Your task to perform on an android device: open wifi settings Image 0: 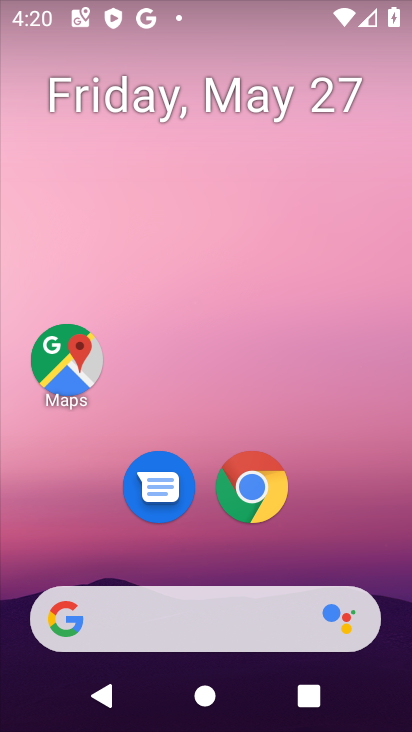
Step 0: drag from (324, 533) to (222, 4)
Your task to perform on an android device: open wifi settings Image 1: 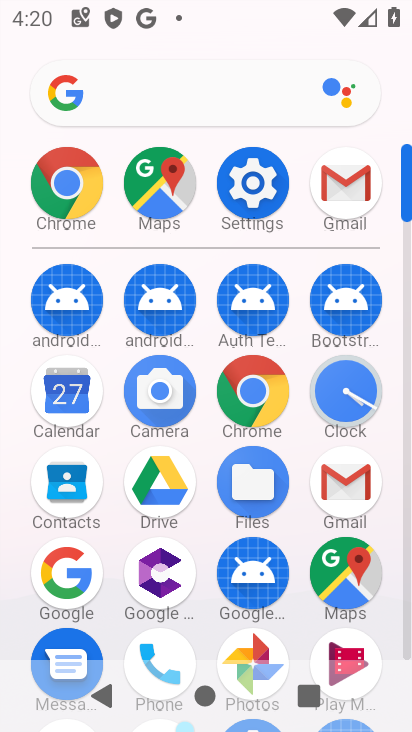
Step 1: click (269, 226)
Your task to perform on an android device: open wifi settings Image 2: 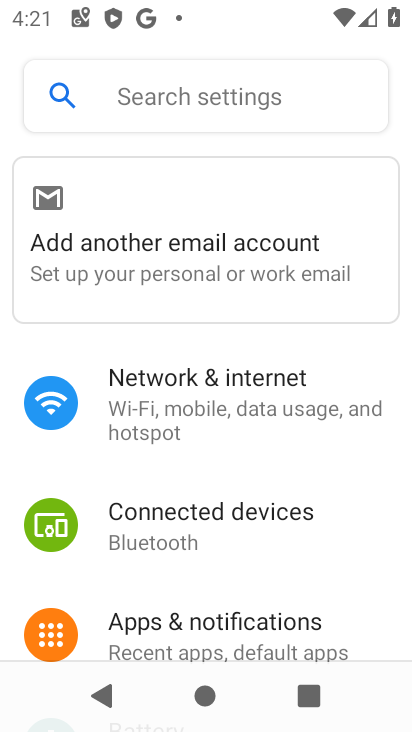
Step 2: click (210, 389)
Your task to perform on an android device: open wifi settings Image 3: 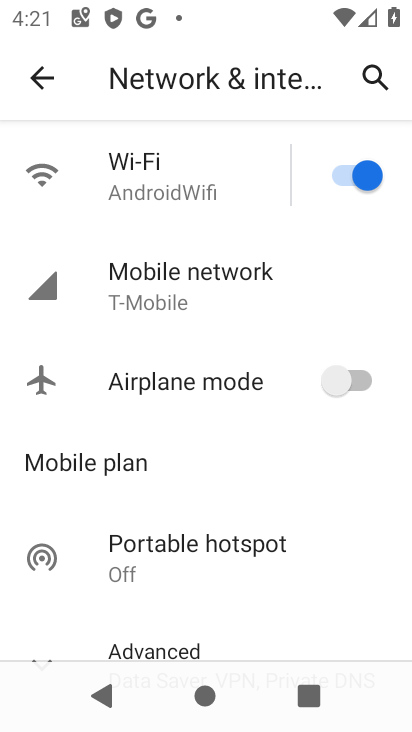
Step 3: click (179, 213)
Your task to perform on an android device: open wifi settings Image 4: 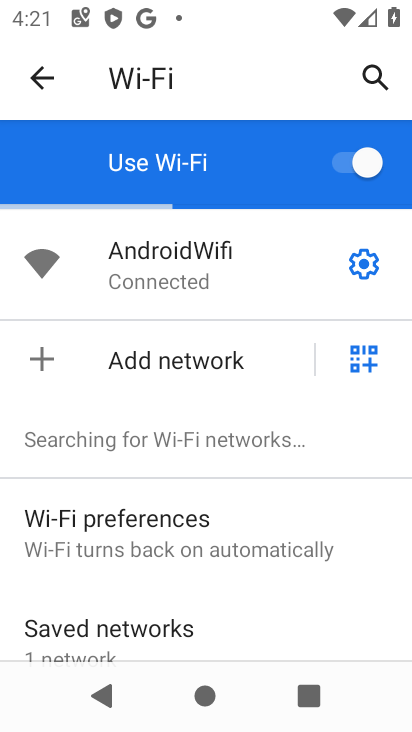
Step 4: click (366, 260)
Your task to perform on an android device: open wifi settings Image 5: 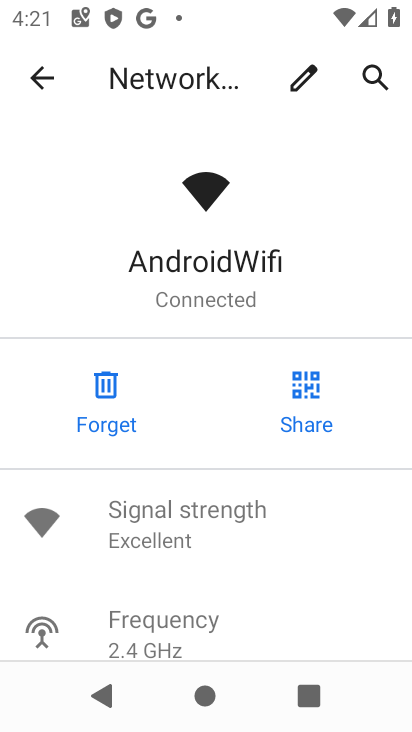
Step 5: task complete